Your task to perform on an android device: delete browsing data in the chrome app Image 0: 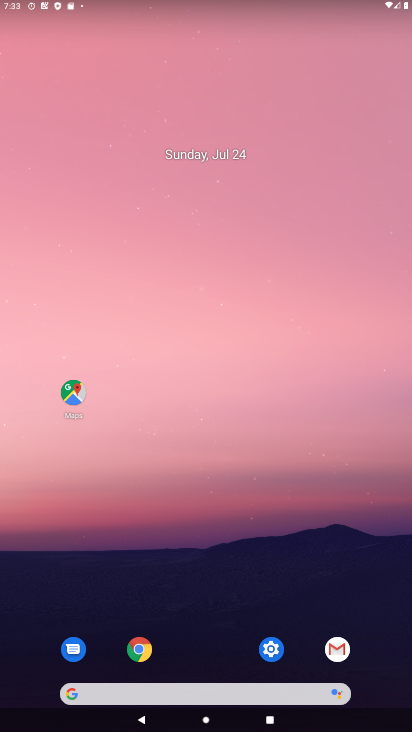
Step 0: click (145, 652)
Your task to perform on an android device: delete browsing data in the chrome app Image 1: 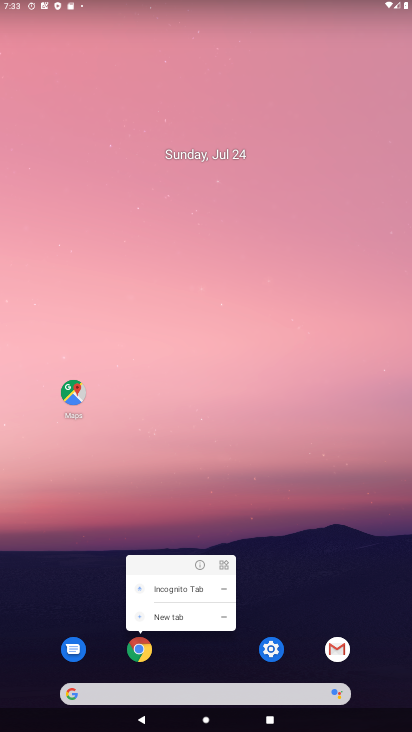
Step 1: click (142, 655)
Your task to perform on an android device: delete browsing data in the chrome app Image 2: 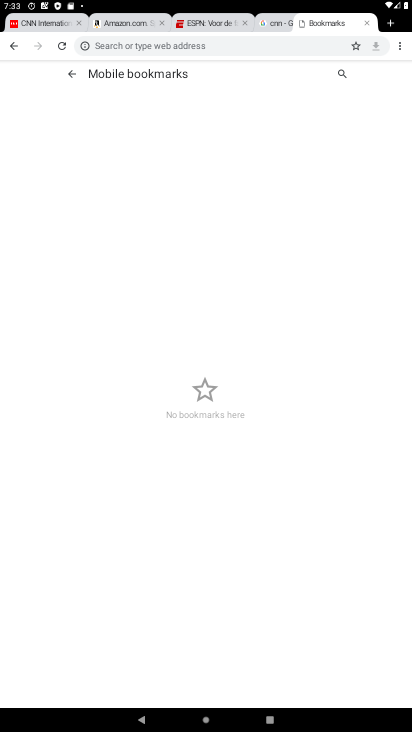
Step 2: click (398, 44)
Your task to perform on an android device: delete browsing data in the chrome app Image 3: 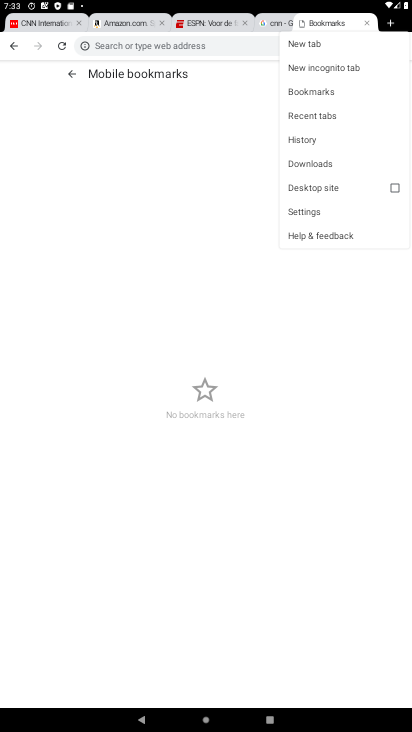
Step 3: click (311, 140)
Your task to perform on an android device: delete browsing data in the chrome app Image 4: 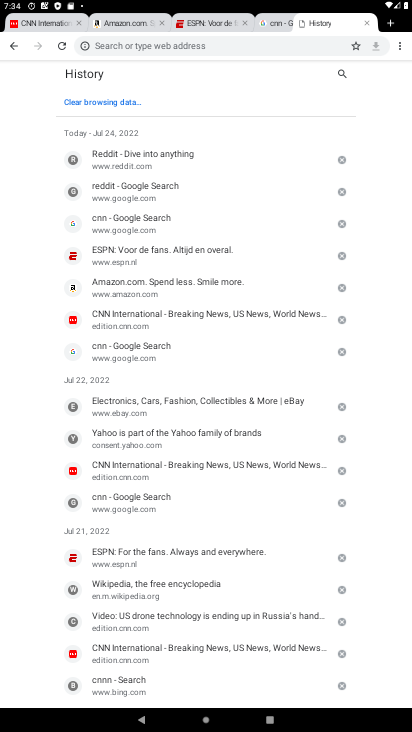
Step 4: click (76, 103)
Your task to perform on an android device: delete browsing data in the chrome app Image 5: 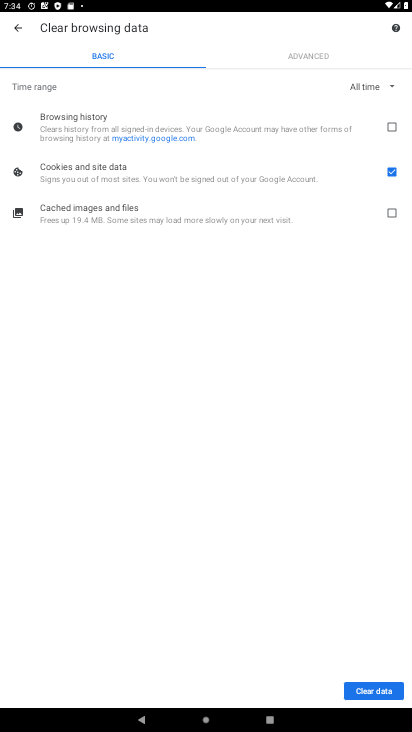
Step 5: click (383, 123)
Your task to perform on an android device: delete browsing data in the chrome app Image 6: 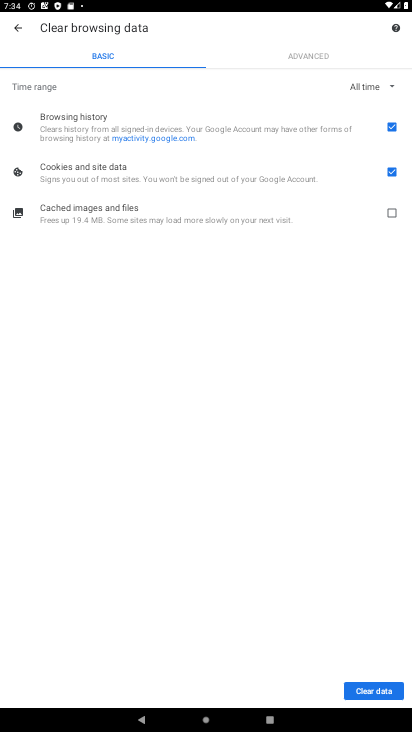
Step 6: click (363, 690)
Your task to perform on an android device: delete browsing data in the chrome app Image 7: 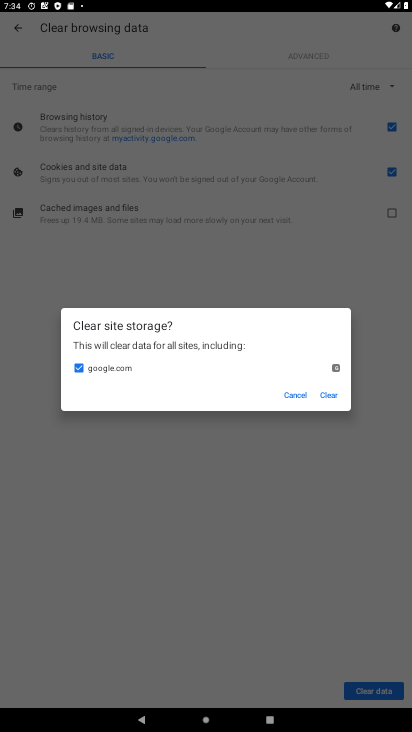
Step 7: task complete